Your task to perform on an android device: View the shopping cart on target.com. Add razer deathadder to the cart on target.com, then select checkout. Image 0: 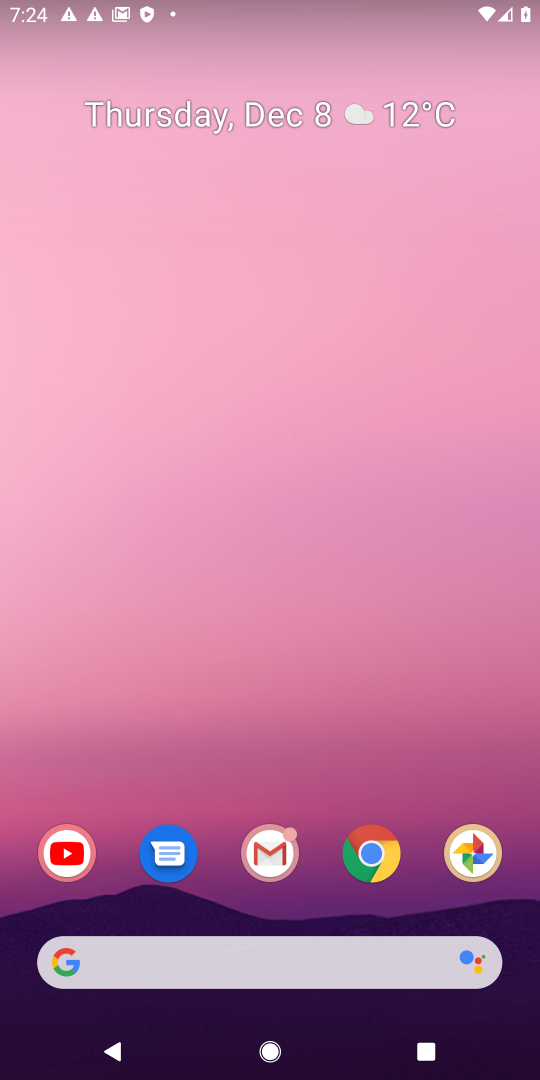
Step 0: click (160, 943)
Your task to perform on an android device: View the shopping cart on target.com. Add razer deathadder to the cart on target.com, then select checkout. Image 1: 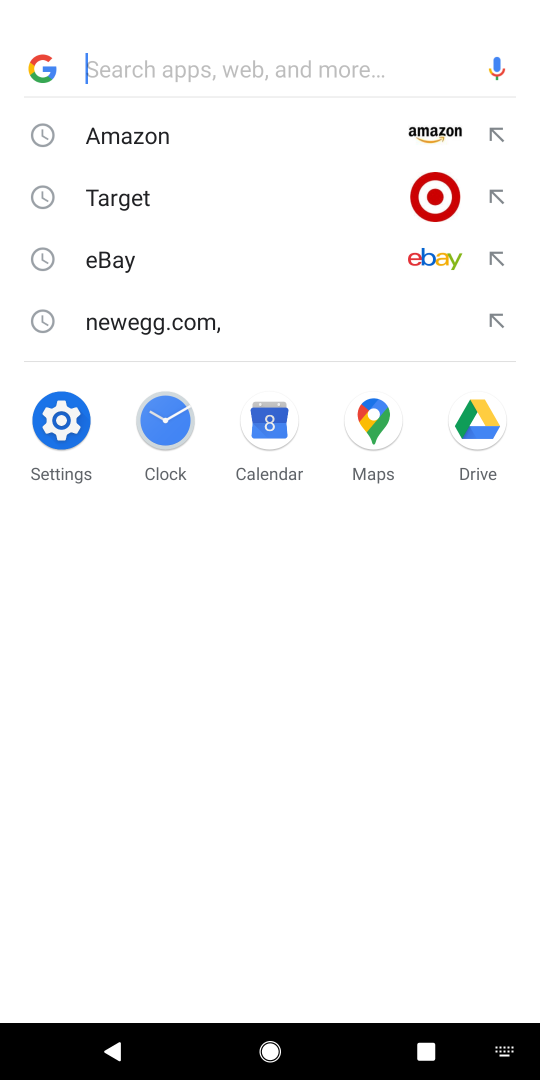
Step 1: click (107, 196)
Your task to perform on an android device: View the shopping cart on target.com. Add razer deathadder to the cart on target.com, then select checkout. Image 2: 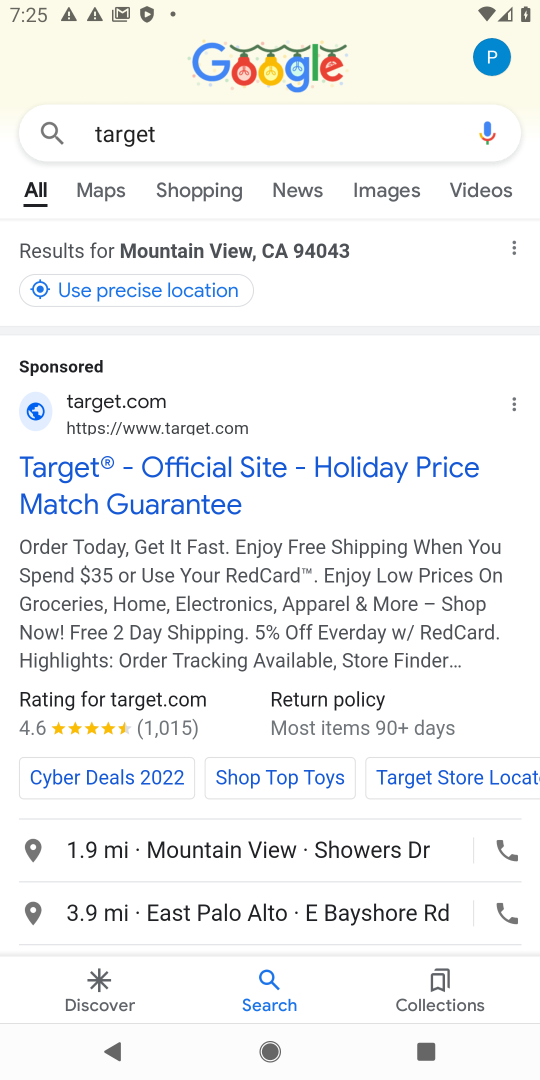
Step 2: click (156, 469)
Your task to perform on an android device: View the shopping cart on target.com. Add razer deathadder to the cart on target.com, then select checkout. Image 3: 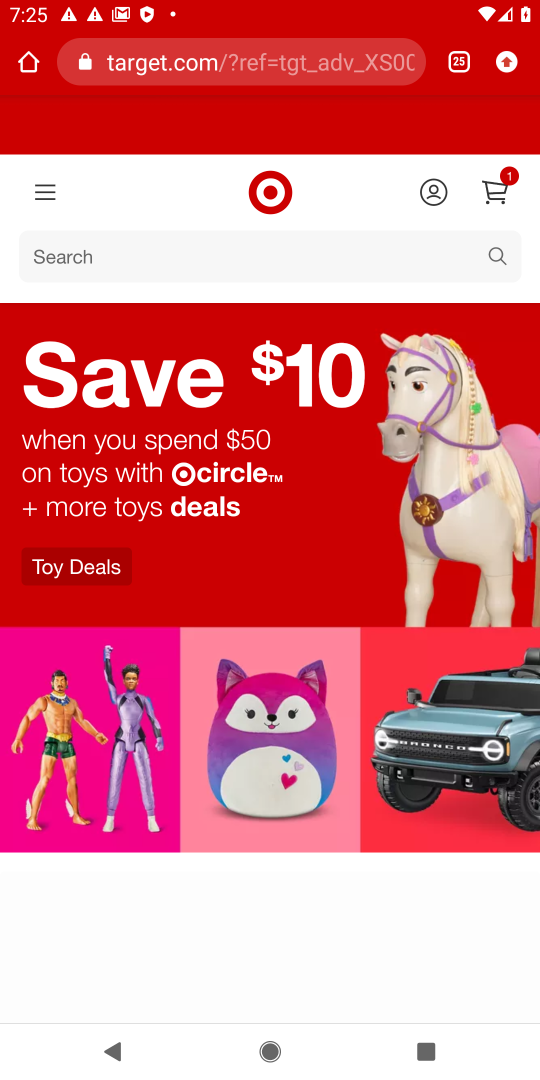
Step 3: click (490, 184)
Your task to perform on an android device: View the shopping cart on target.com. Add razer deathadder to the cart on target.com, then select checkout. Image 4: 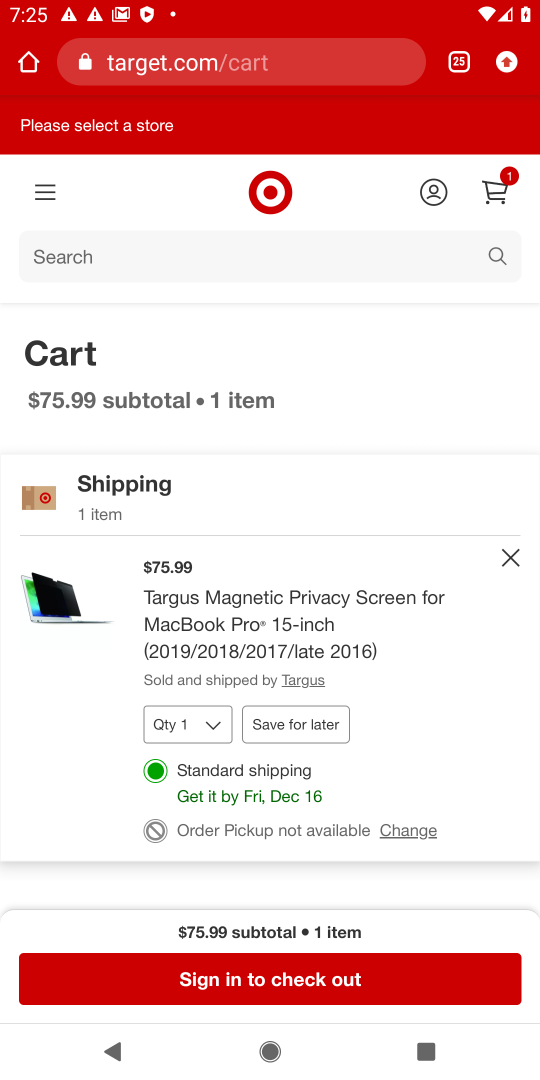
Step 4: click (502, 552)
Your task to perform on an android device: View the shopping cart on target.com. Add razer deathadder to the cart on target.com, then select checkout. Image 5: 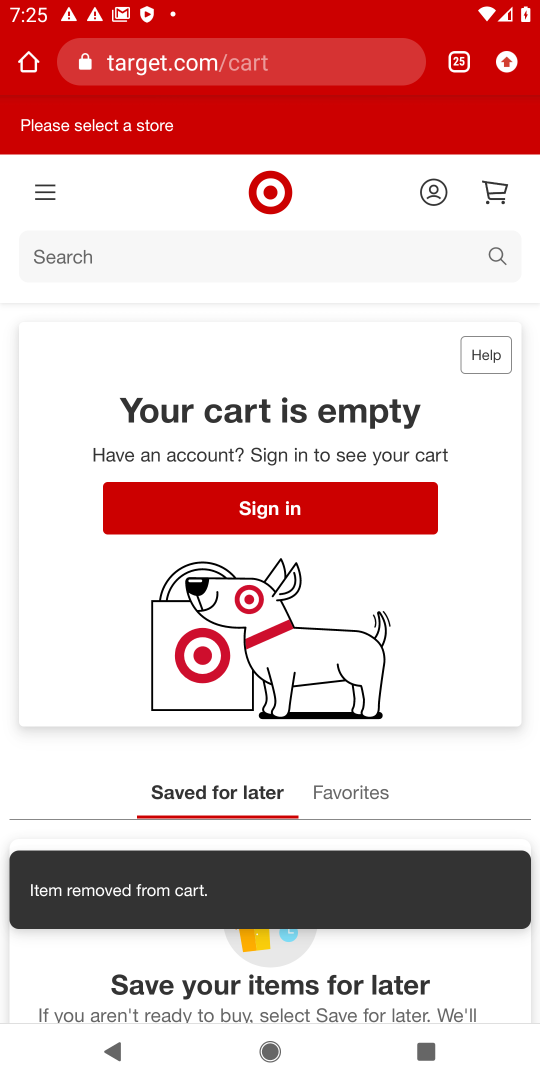
Step 5: click (125, 253)
Your task to perform on an android device: View the shopping cart on target.com. Add razer deathadder to the cart on target.com, then select checkout. Image 6: 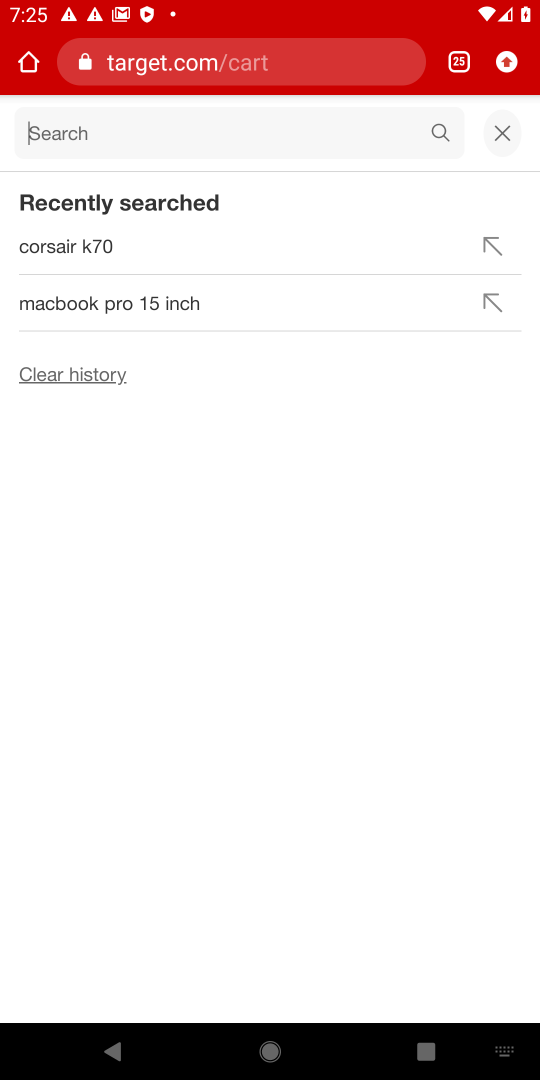
Step 6: type "razer deathadder "
Your task to perform on an android device: View the shopping cart on target.com. Add razer deathadder to the cart on target.com, then select checkout. Image 7: 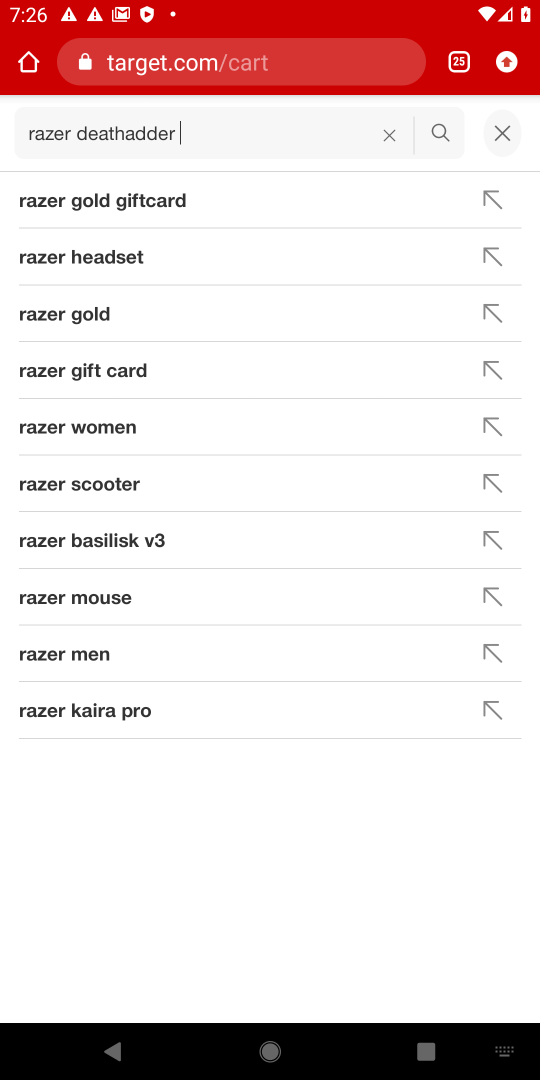
Step 7: click (439, 128)
Your task to perform on an android device: View the shopping cart on target.com. Add razer deathadder to the cart on target.com, then select checkout. Image 8: 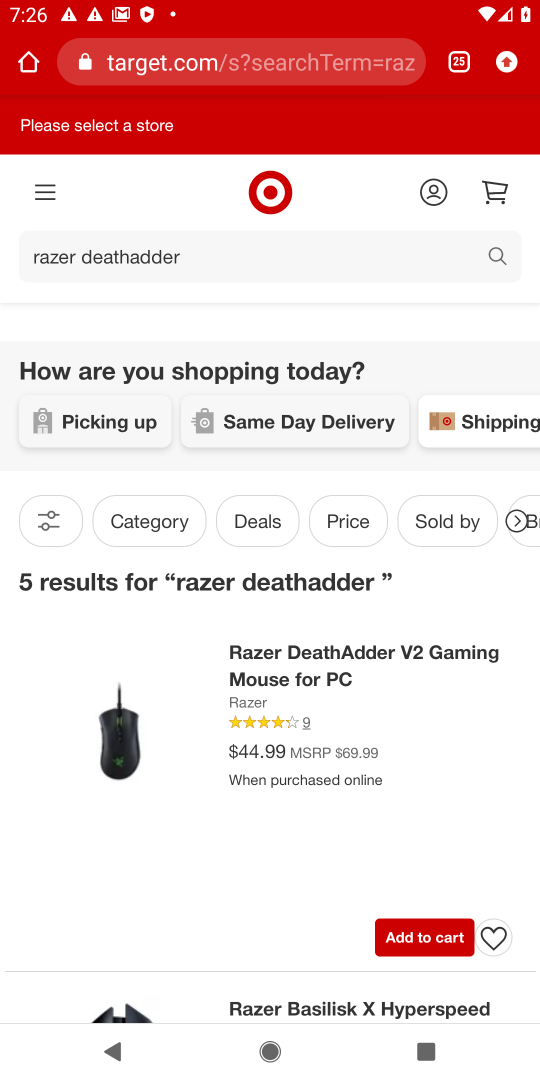
Step 8: drag from (417, 809) to (417, 507)
Your task to perform on an android device: View the shopping cart on target.com. Add razer deathadder to the cart on target.com, then select checkout. Image 9: 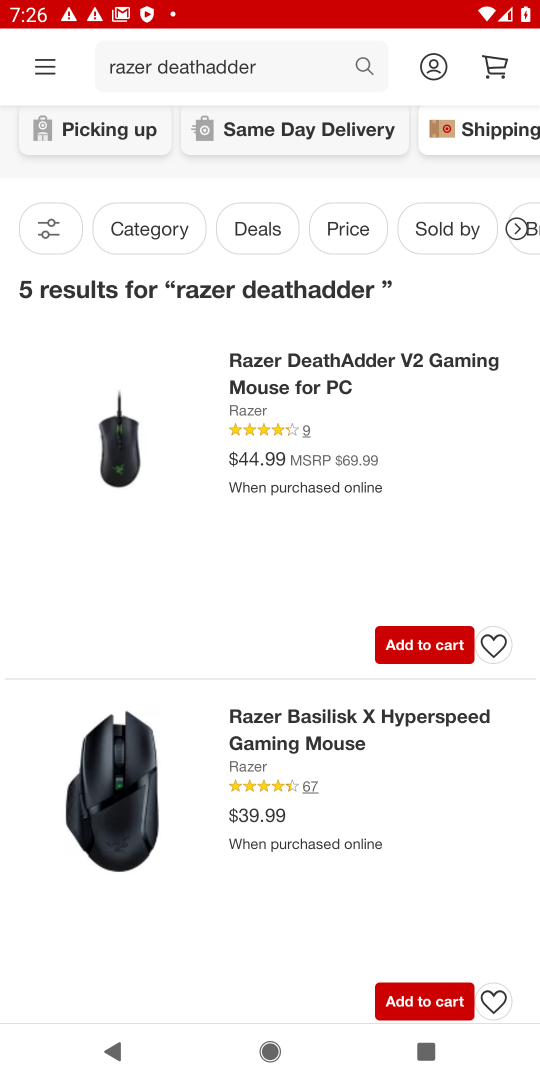
Step 9: click (413, 648)
Your task to perform on an android device: View the shopping cart on target.com. Add razer deathadder to the cart on target.com, then select checkout. Image 10: 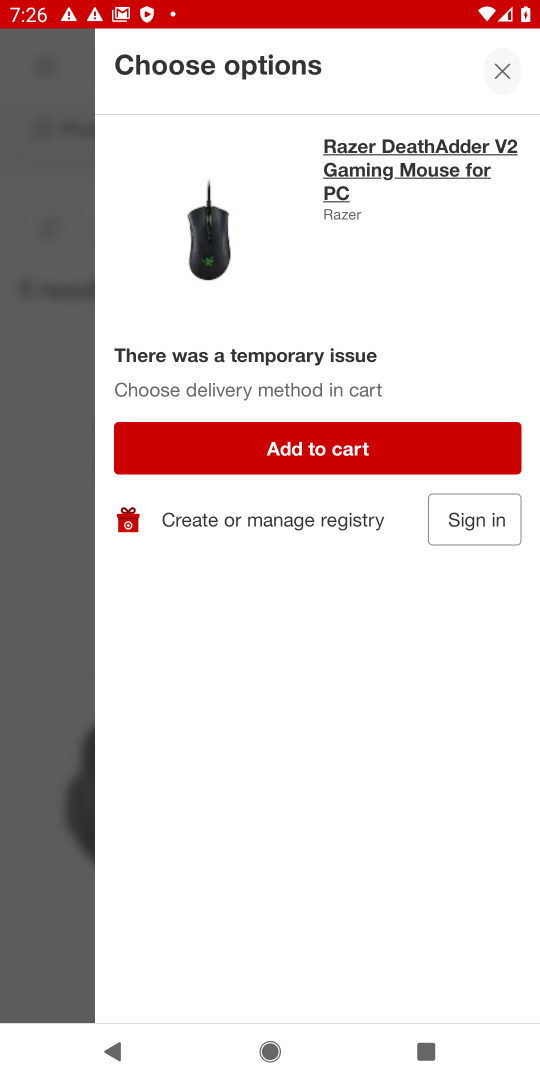
Step 10: click (359, 426)
Your task to perform on an android device: View the shopping cart on target.com. Add razer deathadder to the cart on target.com, then select checkout. Image 11: 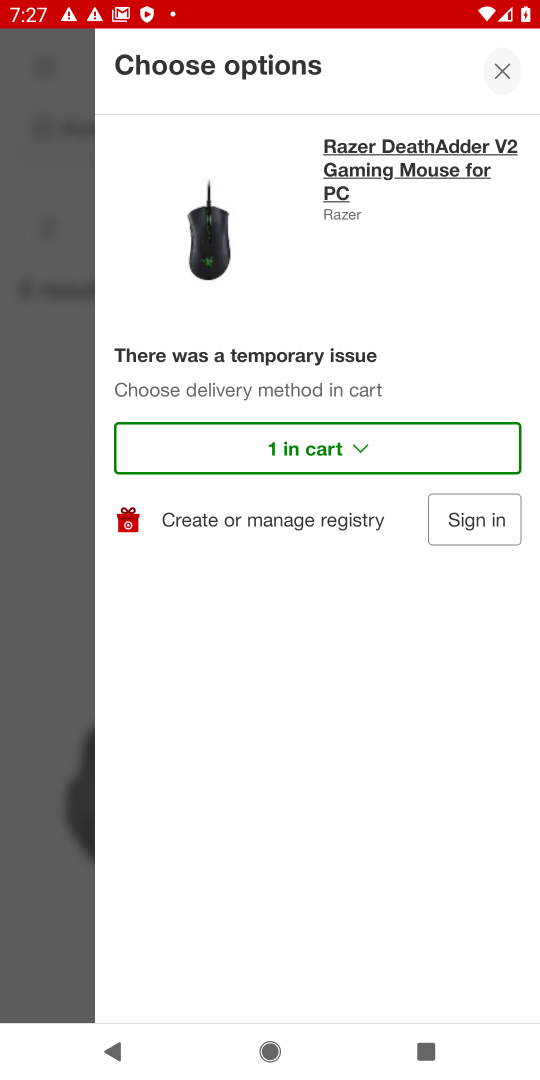
Step 11: click (373, 442)
Your task to perform on an android device: View the shopping cart on target.com. Add razer deathadder to the cart on target.com, then select checkout. Image 12: 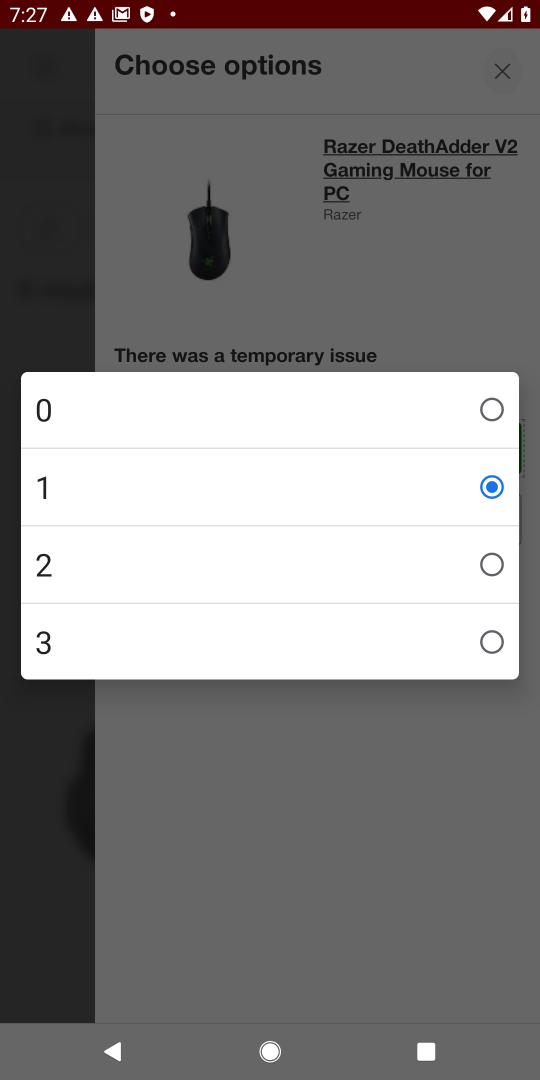
Step 12: click (391, 502)
Your task to perform on an android device: View the shopping cart on target.com. Add razer deathadder to the cart on target.com, then select checkout. Image 13: 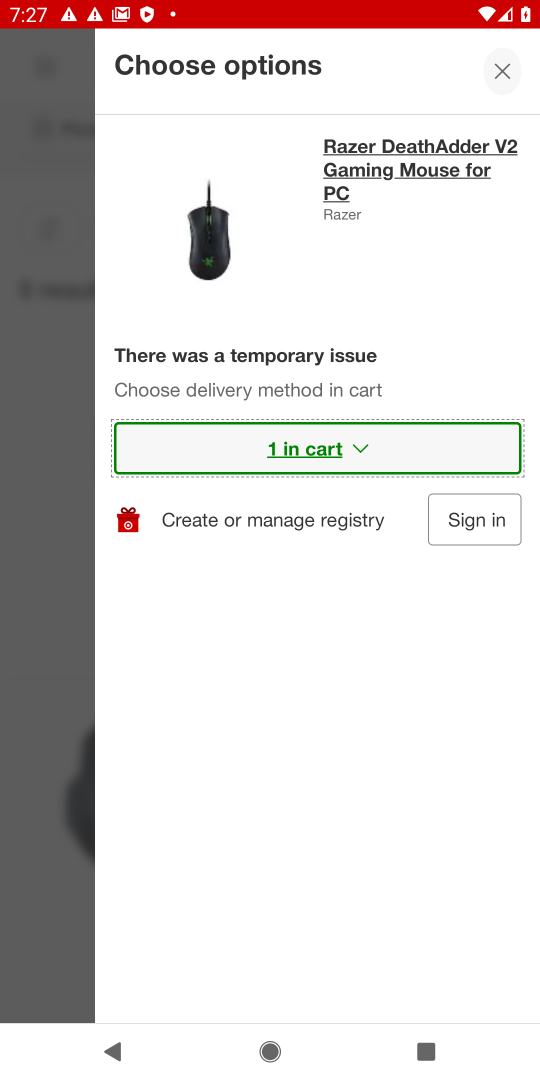
Step 13: click (501, 69)
Your task to perform on an android device: View the shopping cart on target.com. Add razer deathadder to the cart on target.com, then select checkout. Image 14: 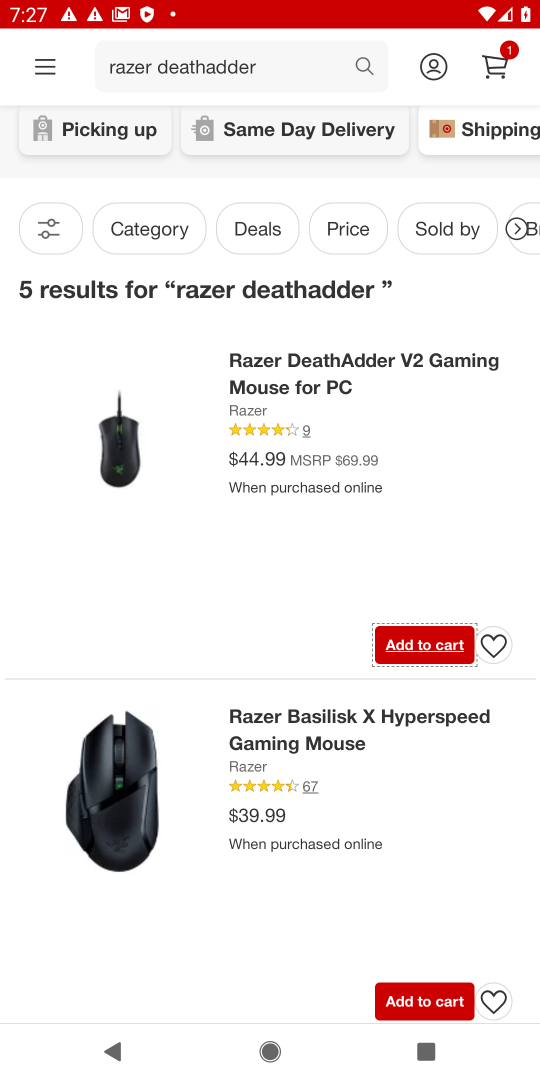
Step 14: click (492, 74)
Your task to perform on an android device: View the shopping cart on target.com. Add razer deathadder to the cart on target.com, then select checkout. Image 15: 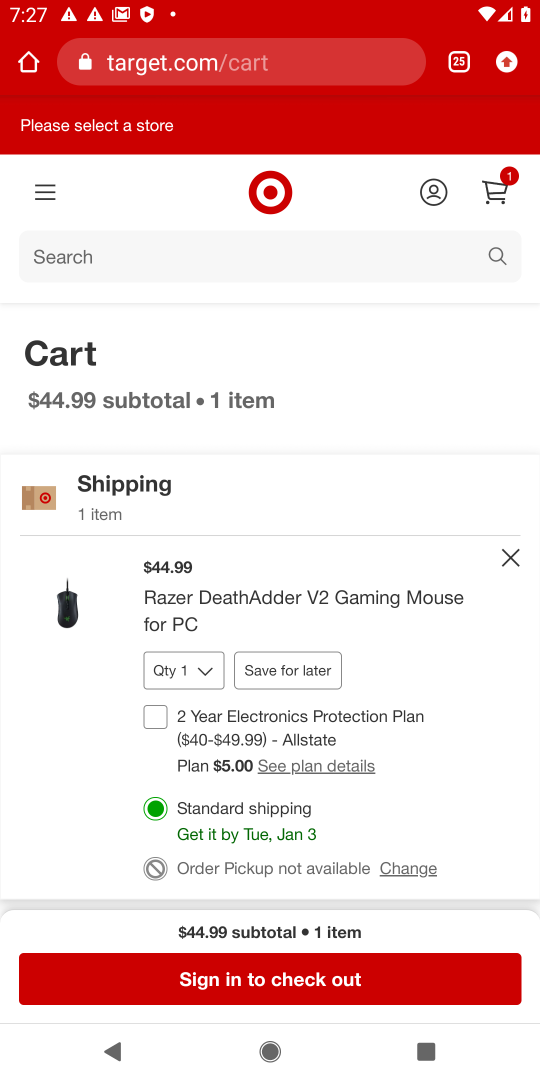
Step 15: click (312, 978)
Your task to perform on an android device: View the shopping cart on target.com. Add razer deathadder to the cart on target.com, then select checkout. Image 16: 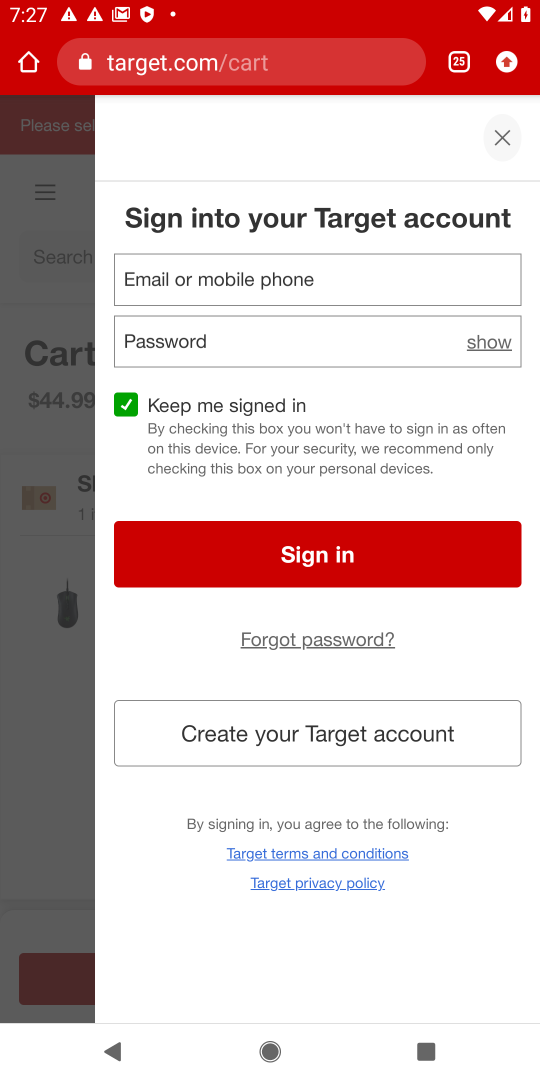
Step 16: task complete